Your task to perform on an android device: toggle notification dots Image 0: 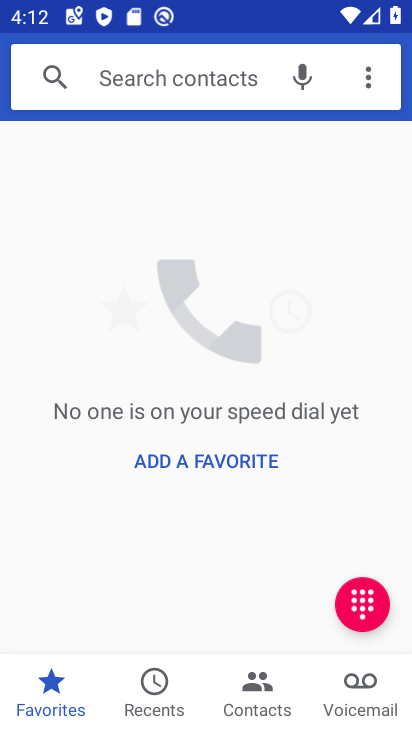
Step 0: press home button
Your task to perform on an android device: toggle notification dots Image 1: 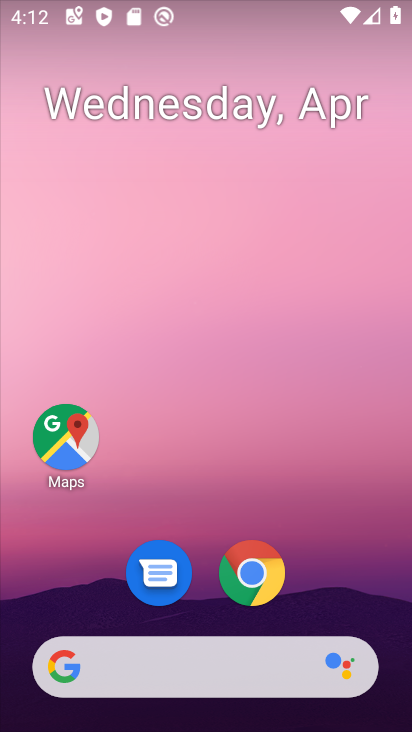
Step 1: drag from (362, 556) to (356, 10)
Your task to perform on an android device: toggle notification dots Image 2: 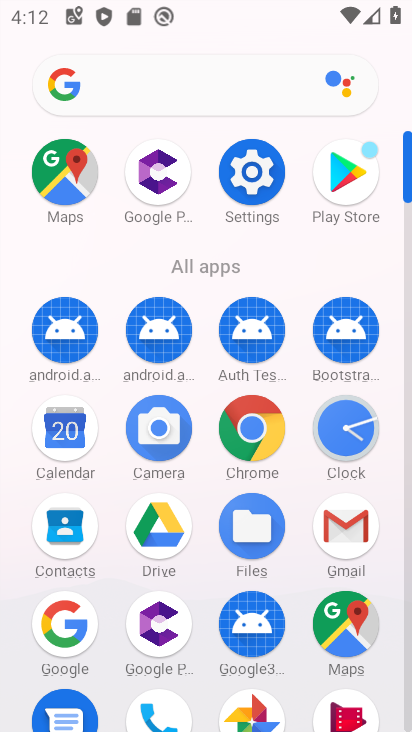
Step 2: click (248, 174)
Your task to perform on an android device: toggle notification dots Image 3: 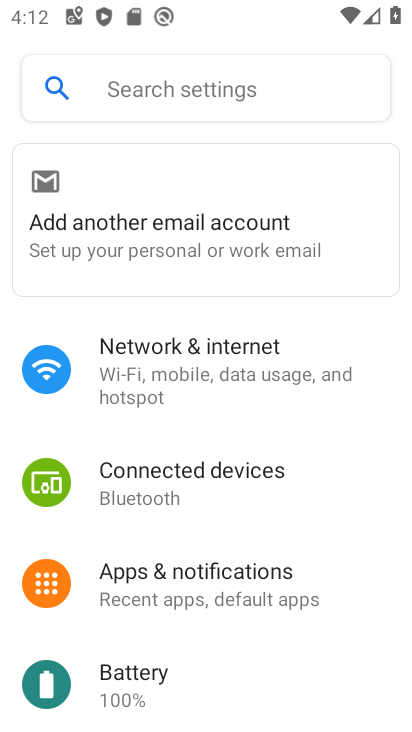
Step 3: click (178, 577)
Your task to perform on an android device: toggle notification dots Image 4: 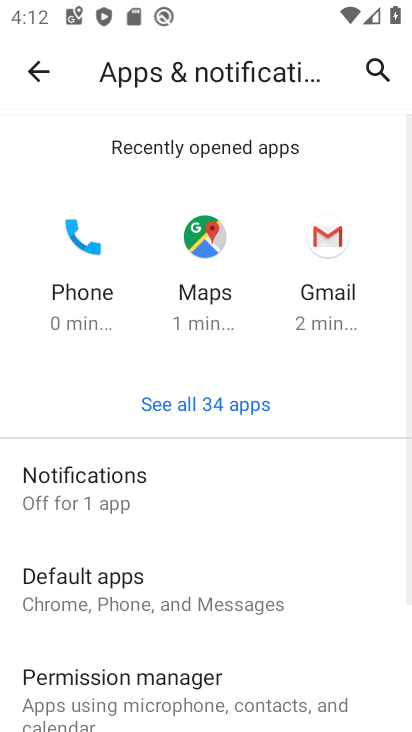
Step 4: click (87, 504)
Your task to perform on an android device: toggle notification dots Image 5: 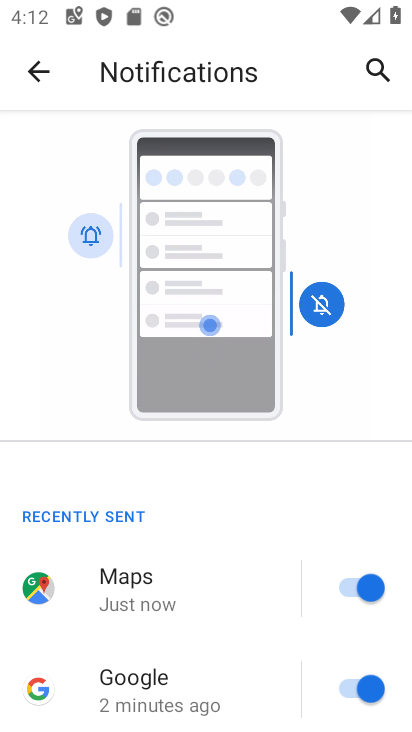
Step 5: drag from (236, 637) to (238, 218)
Your task to perform on an android device: toggle notification dots Image 6: 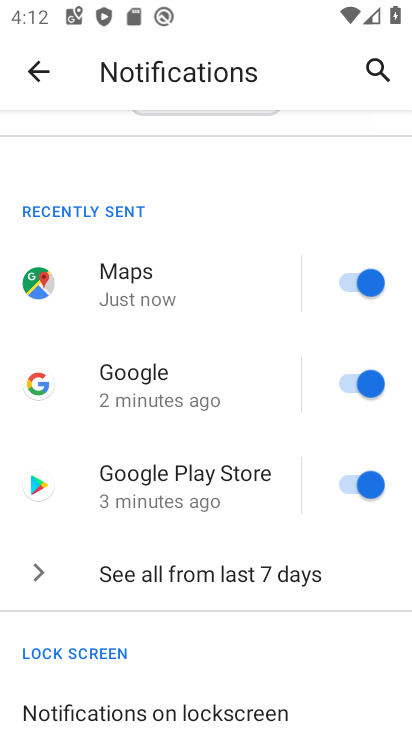
Step 6: drag from (236, 525) to (231, 189)
Your task to perform on an android device: toggle notification dots Image 7: 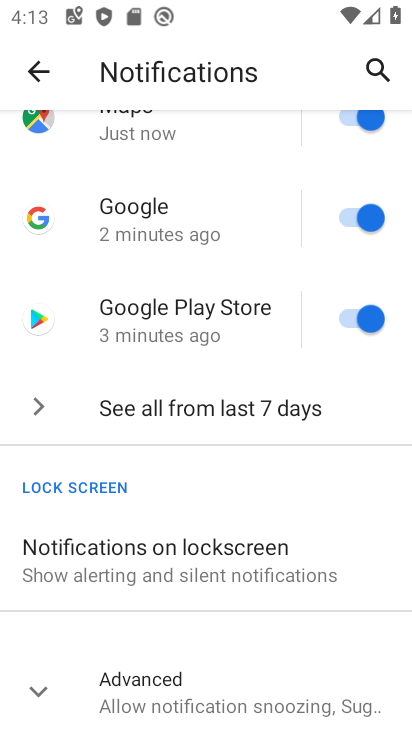
Step 7: drag from (208, 599) to (213, 286)
Your task to perform on an android device: toggle notification dots Image 8: 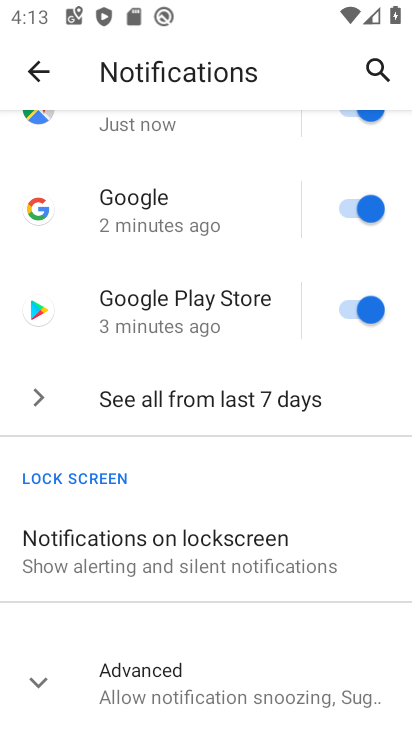
Step 8: click (36, 687)
Your task to perform on an android device: toggle notification dots Image 9: 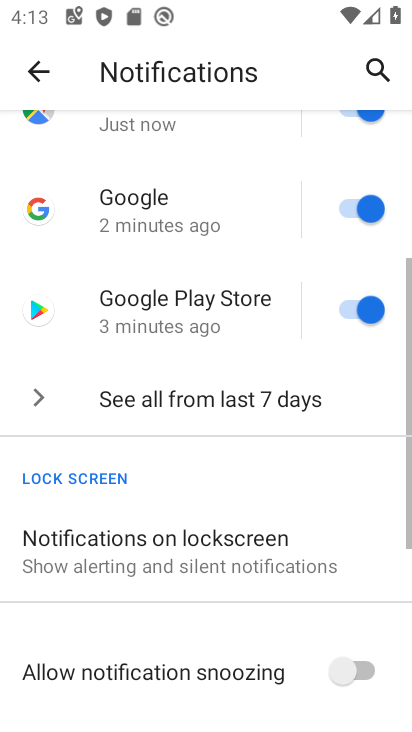
Step 9: drag from (203, 654) to (201, 251)
Your task to perform on an android device: toggle notification dots Image 10: 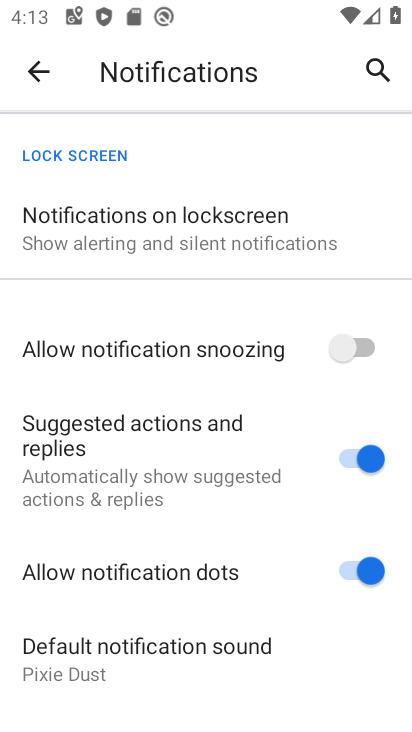
Step 10: click (369, 568)
Your task to perform on an android device: toggle notification dots Image 11: 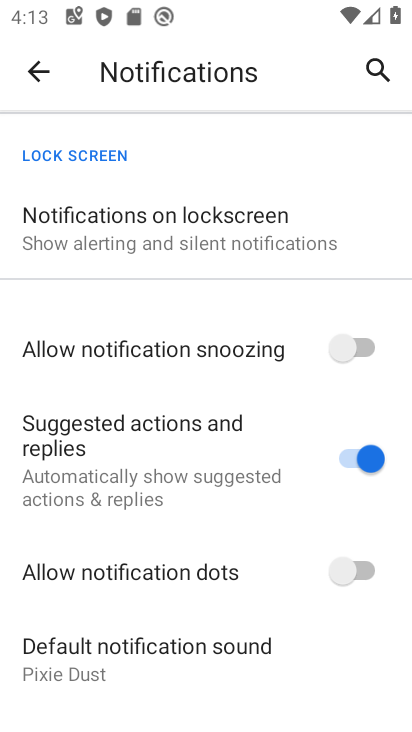
Step 11: task complete